Your task to perform on an android device: turn pop-ups on in chrome Image 0: 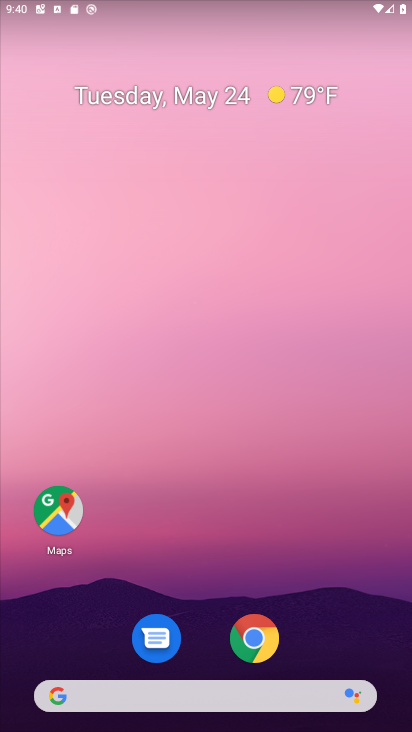
Step 0: click (251, 641)
Your task to perform on an android device: turn pop-ups on in chrome Image 1: 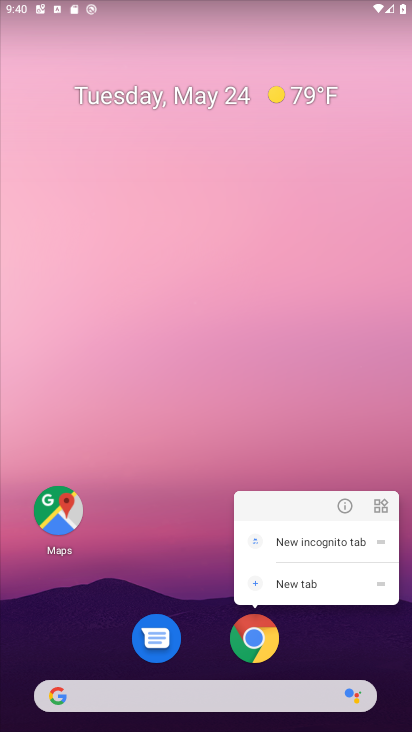
Step 1: click (251, 641)
Your task to perform on an android device: turn pop-ups on in chrome Image 2: 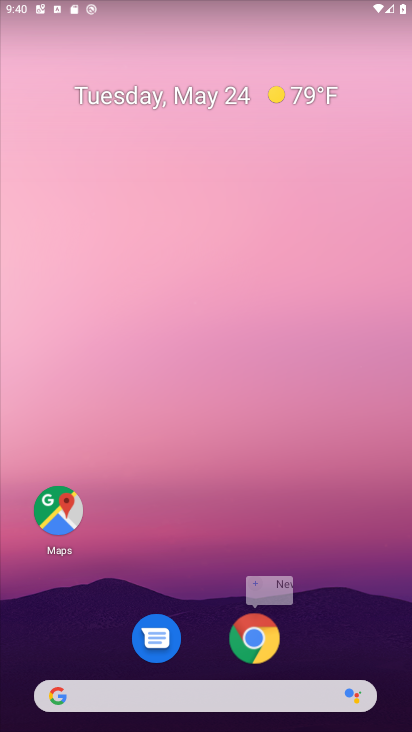
Step 2: click (251, 641)
Your task to perform on an android device: turn pop-ups on in chrome Image 3: 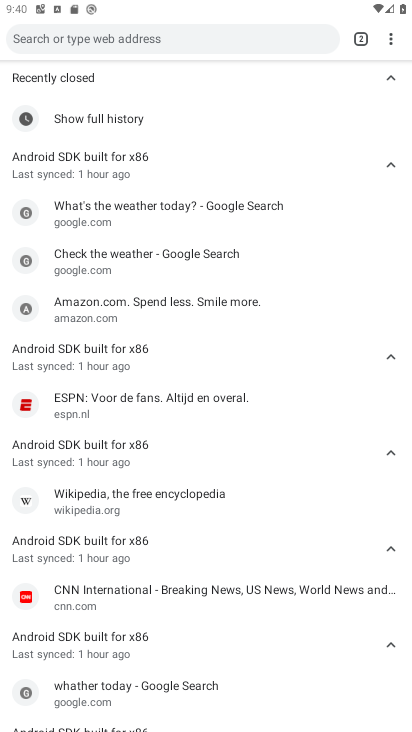
Step 3: click (388, 40)
Your task to perform on an android device: turn pop-ups on in chrome Image 4: 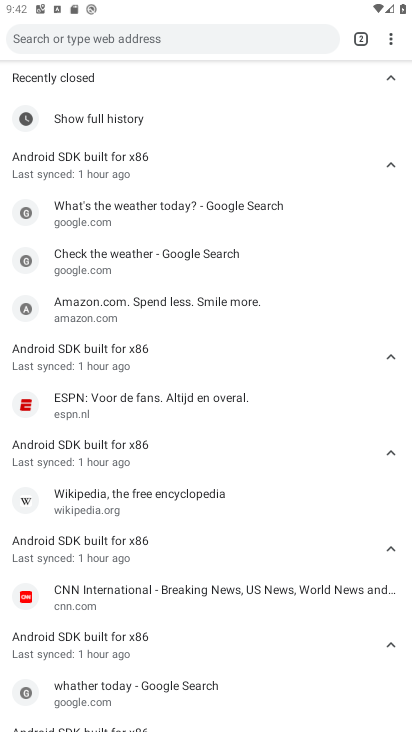
Step 4: click (391, 39)
Your task to perform on an android device: turn pop-ups on in chrome Image 5: 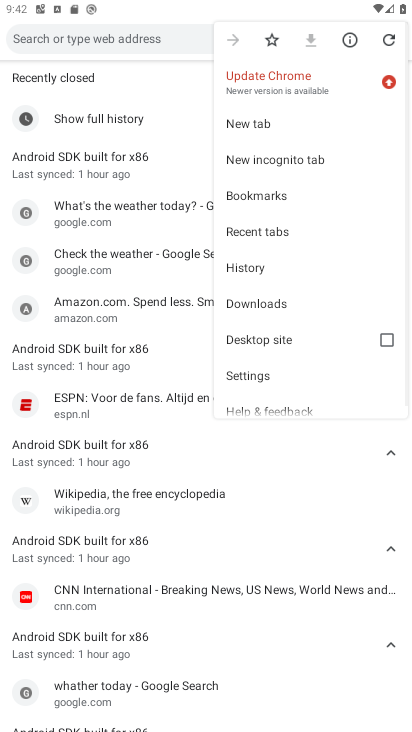
Step 5: click (283, 382)
Your task to perform on an android device: turn pop-ups on in chrome Image 6: 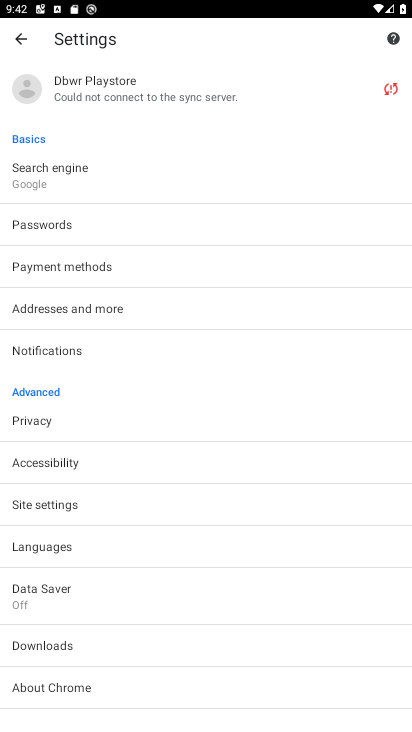
Step 6: click (81, 514)
Your task to perform on an android device: turn pop-ups on in chrome Image 7: 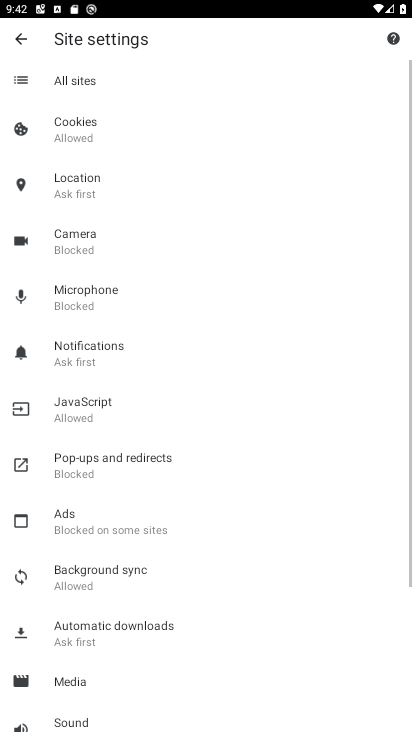
Step 7: click (125, 458)
Your task to perform on an android device: turn pop-ups on in chrome Image 8: 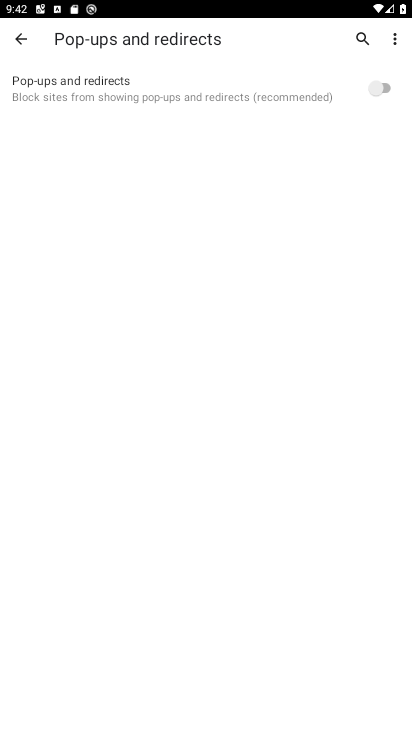
Step 8: click (383, 85)
Your task to perform on an android device: turn pop-ups on in chrome Image 9: 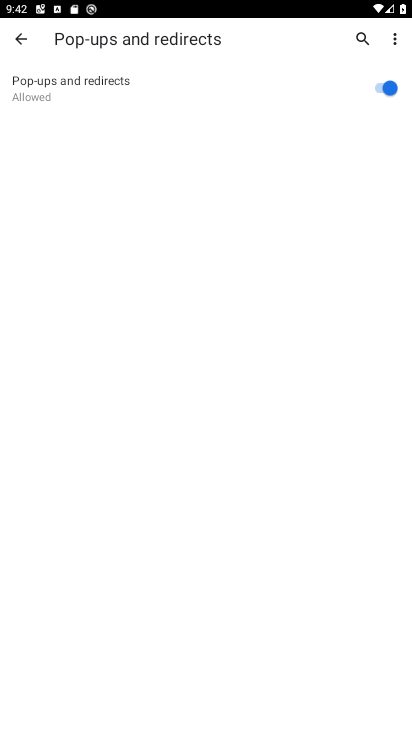
Step 9: task complete